Your task to perform on an android device: Go to Reddit.com Image 0: 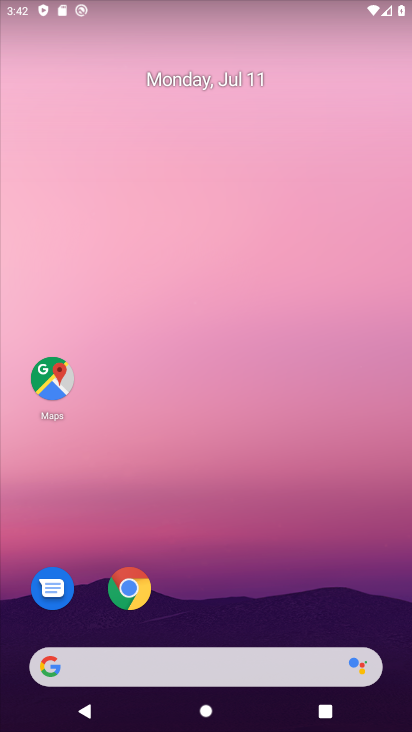
Step 0: drag from (207, 653) to (203, 115)
Your task to perform on an android device: Go to Reddit.com Image 1: 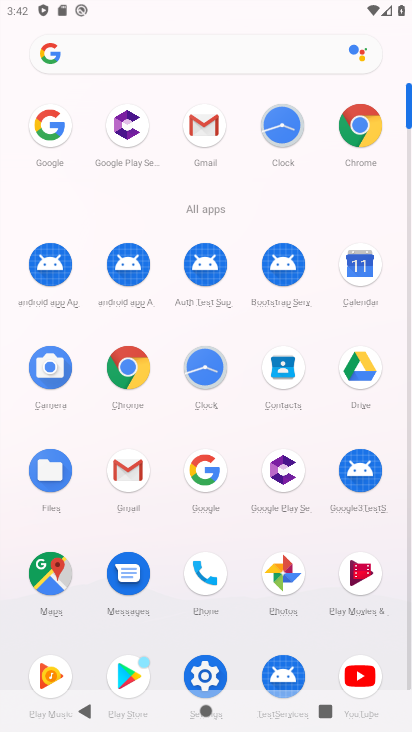
Step 1: click (203, 115)
Your task to perform on an android device: Go to Reddit.com Image 2: 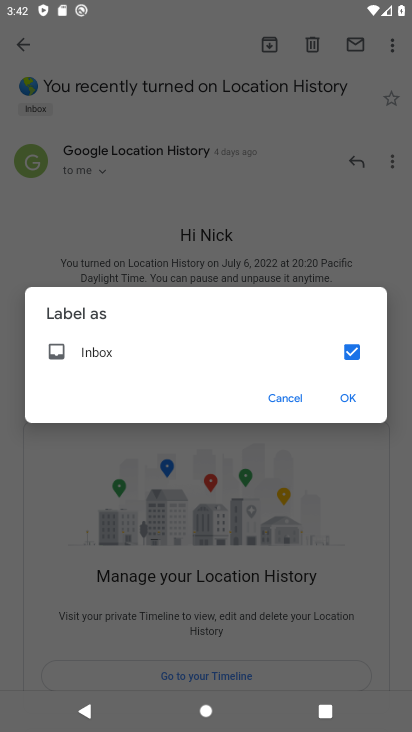
Step 2: press home button
Your task to perform on an android device: Go to Reddit.com Image 3: 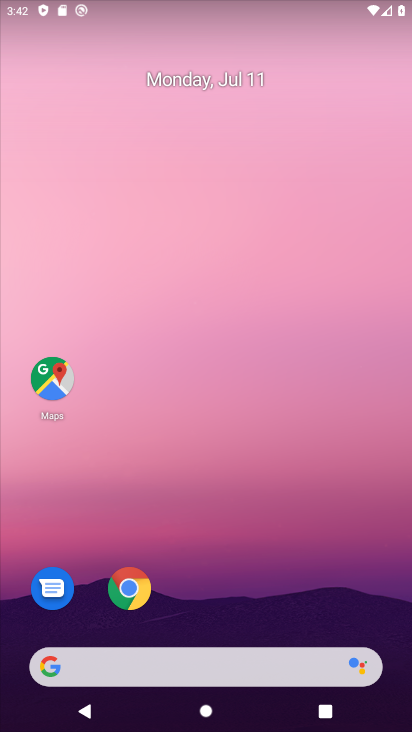
Step 3: click (145, 607)
Your task to perform on an android device: Go to Reddit.com Image 4: 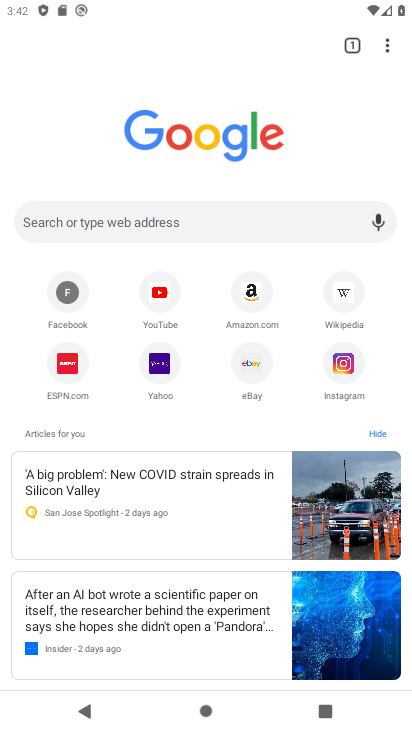
Step 4: click (250, 225)
Your task to perform on an android device: Go to Reddit.com Image 5: 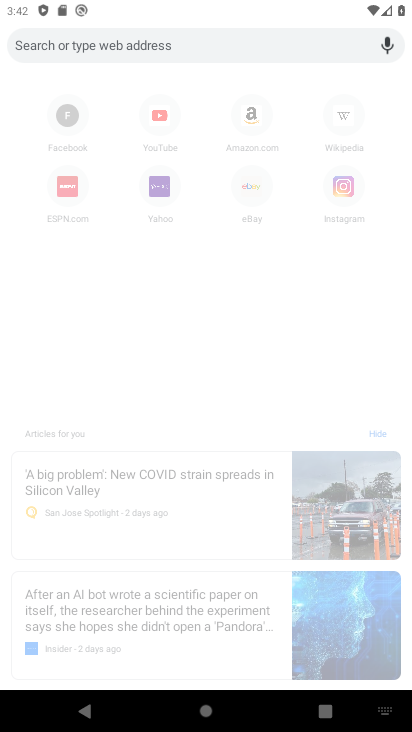
Step 5: type "reddit.com"
Your task to perform on an android device: Go to Reddit.com Image 6: 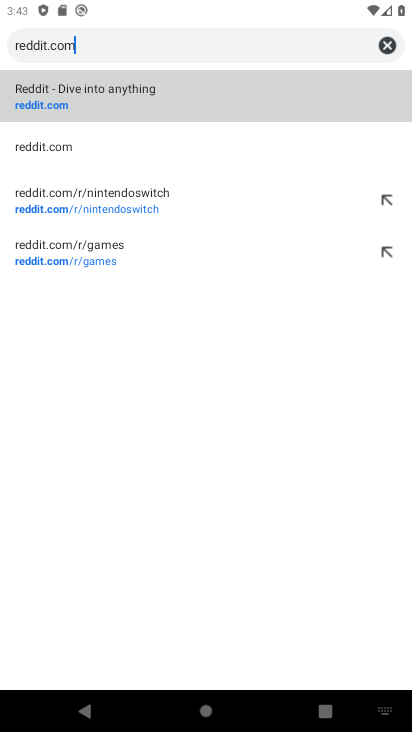
Step 6: click (295, 101)
Your task to perform on an android device: Go to Reddit.com Image 7: 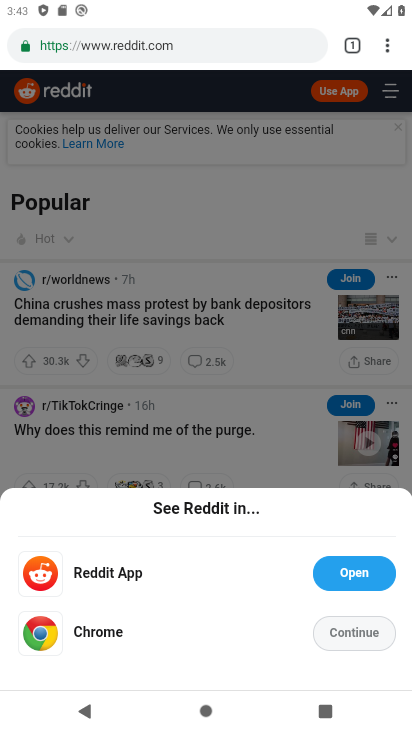
Step 7: task complete